Your task to perform on an android device: change the clock style Image 0: 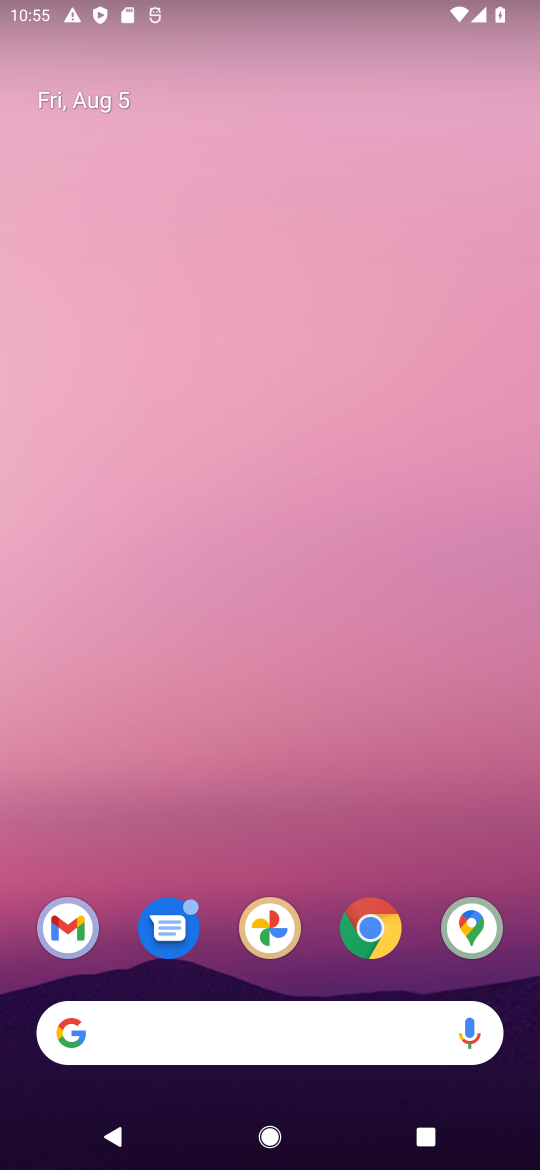
Step 0: drag from (295, 994) to (189, 62)
Your task to perform on an android device: change the clock style Image 1: 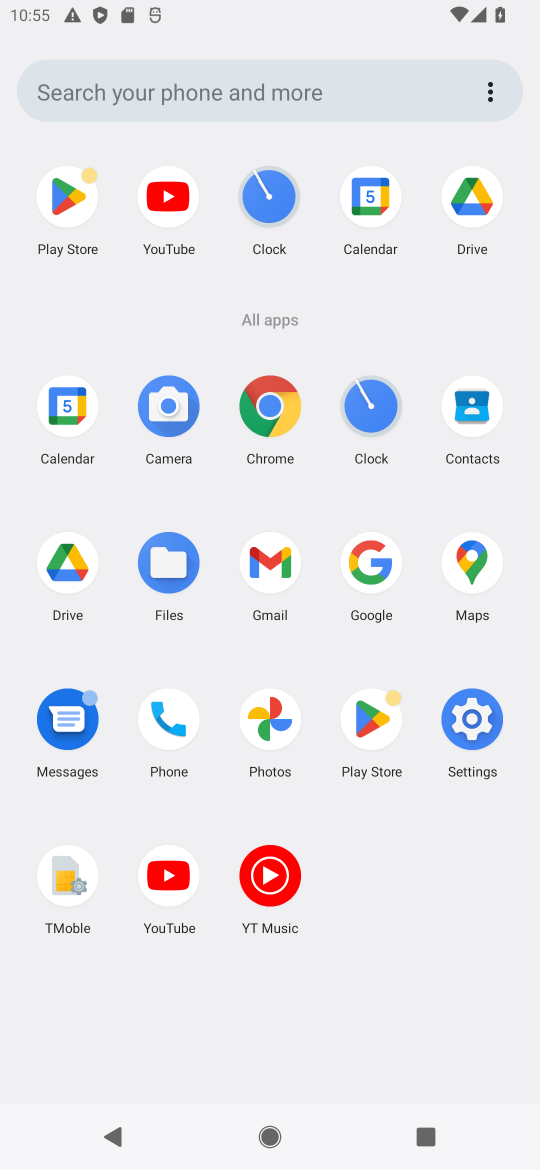
Step 1: click (375, 422)
Your task to perform on an android device: change the clock style Image 2: 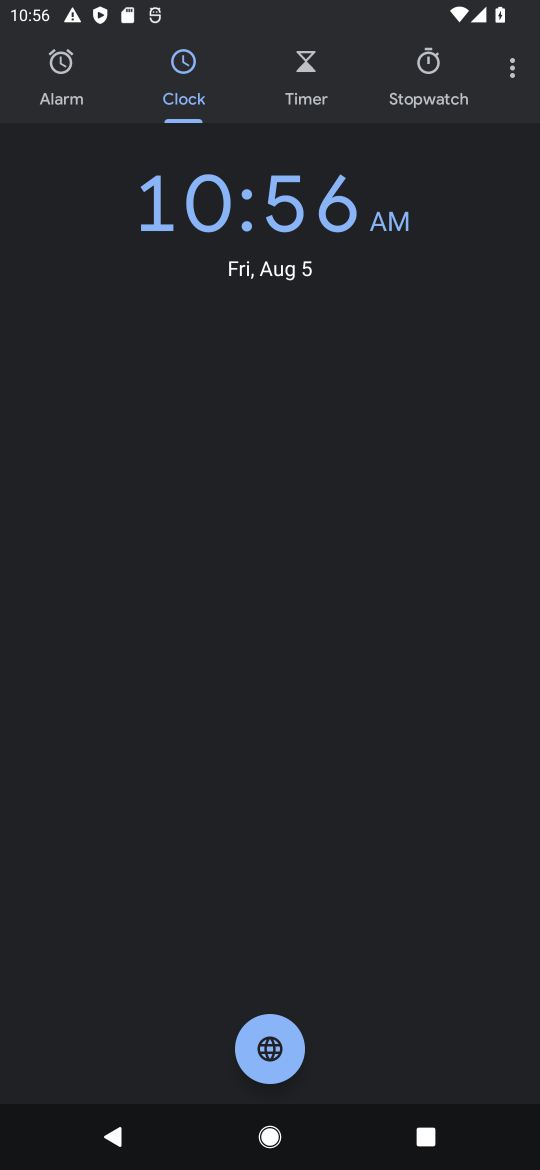
Step 2: click (503, 75)
Your task to perform on an android device: change the clock style Image 3: 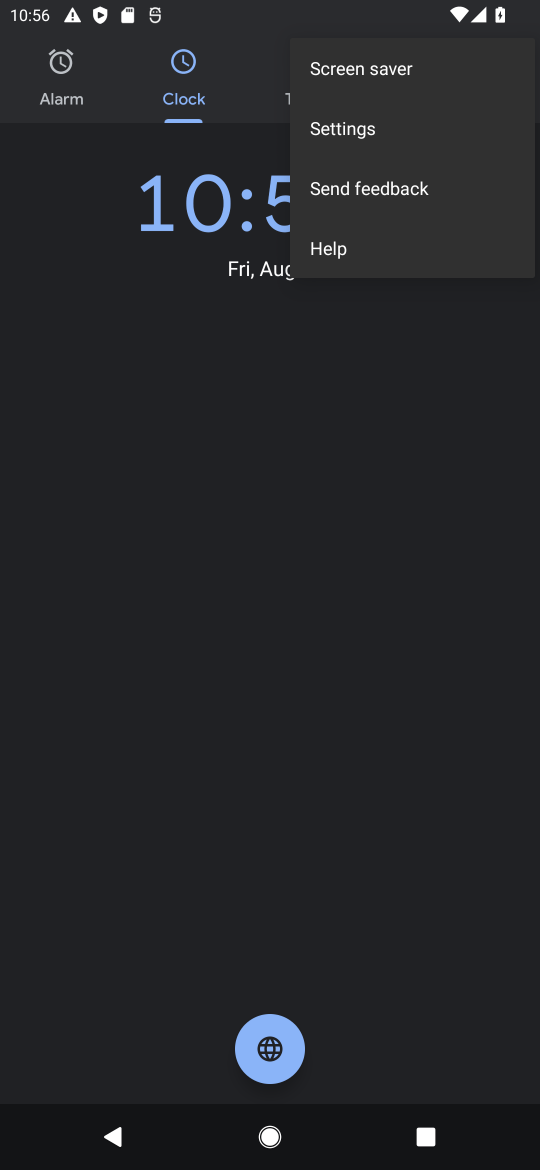
Step 3: click (378, 124)
Your task to perform on an android device: change the clock style Image 4: 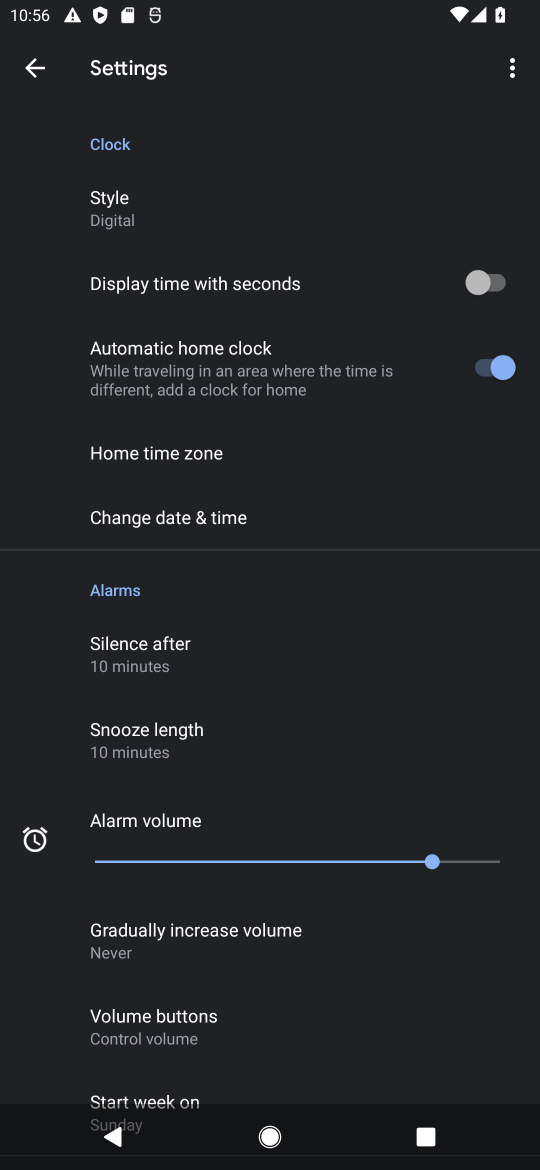
Step 4: click (135, 217)
Your task to perform on an android device: change the clock style Image 5: 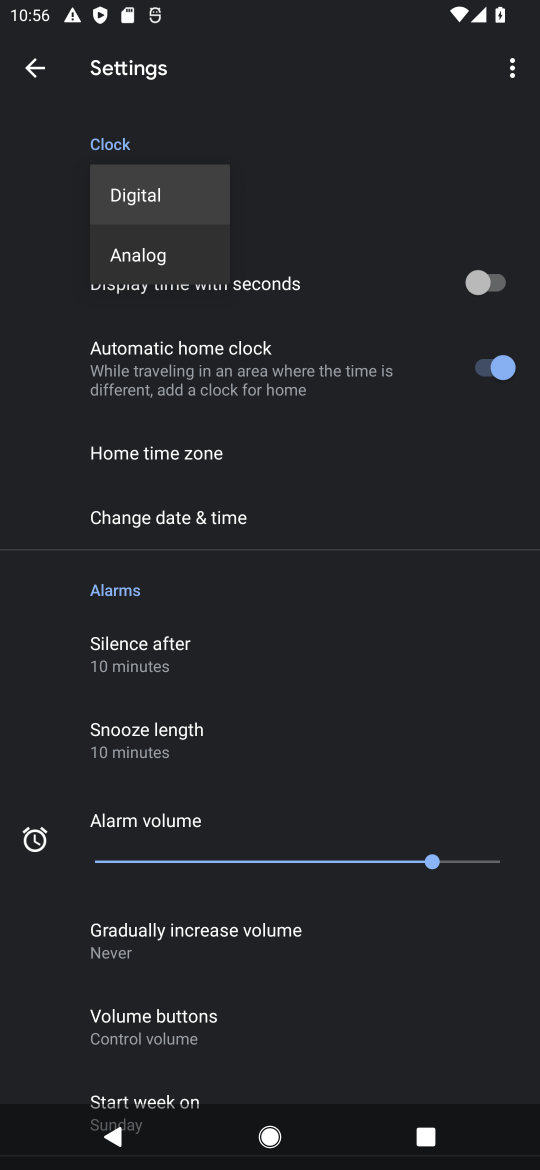
Step 5: click (129, 244)
Your task to perform on an android device: change the clock style Image 6: 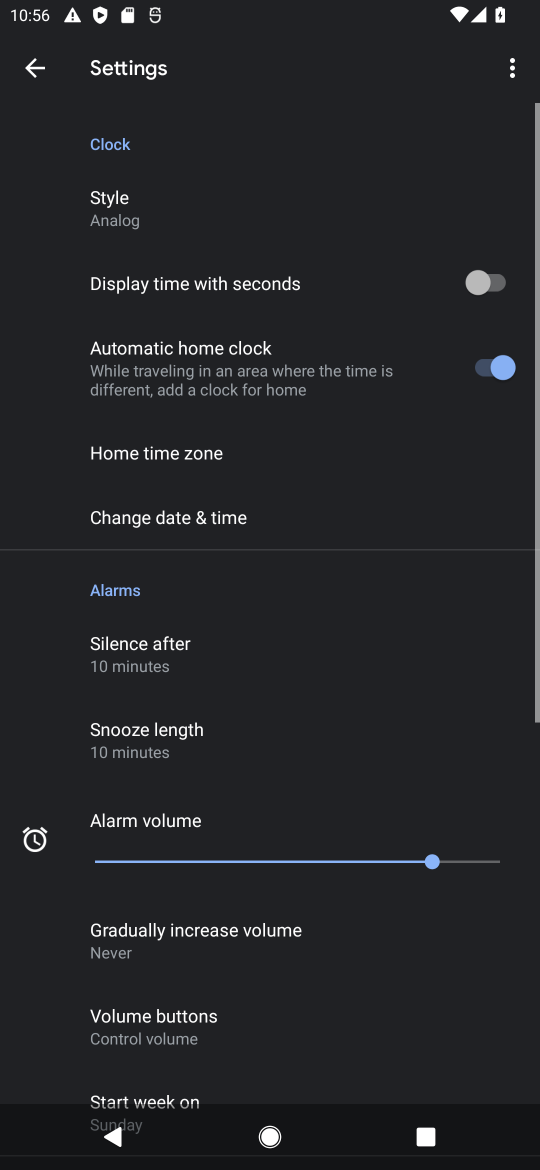
Step 6: task complete